Your task to perform on an android device: turn on wifi Image 0: 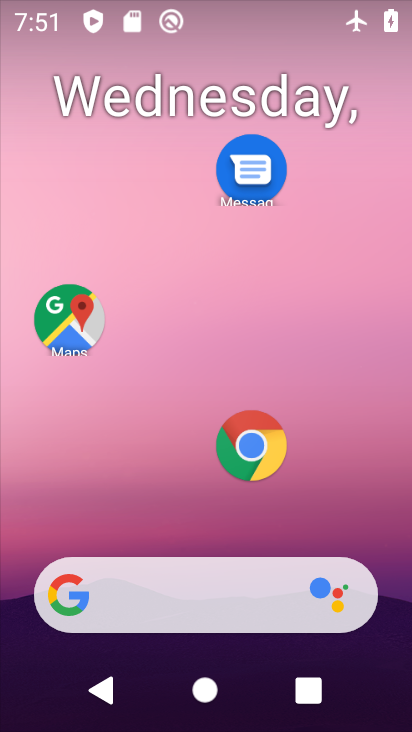
Step 0: drag from (346, 684) to (142, 18)
Your task to perform on an android device: turn on wifi Image 1: 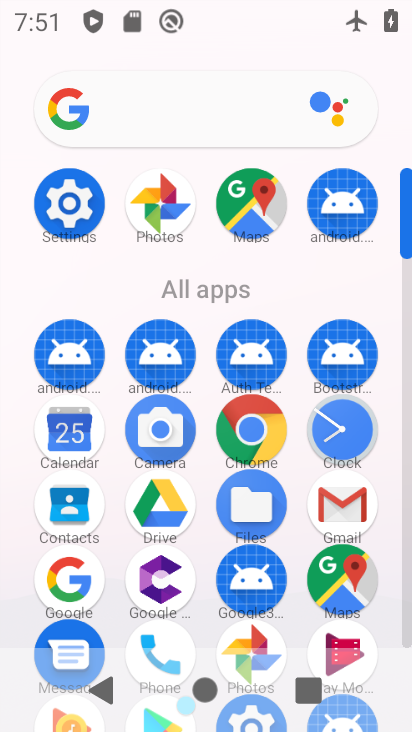
Step 1: click (73, 192)
Your task to perform on an android device: turn on wifi Image 2: 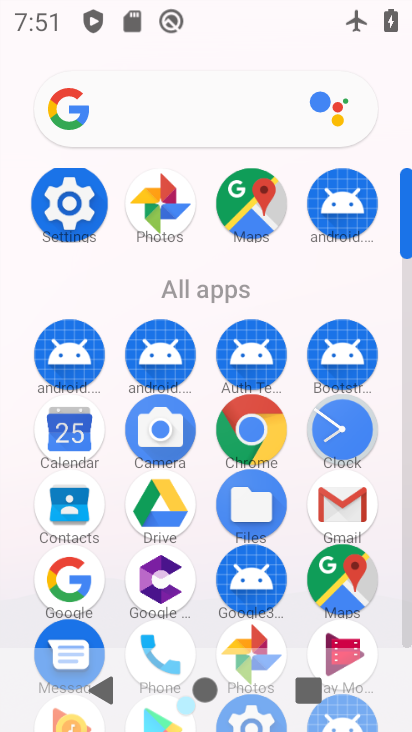
Step 2: click (72, 193)
Your task to perform on an android device: turn on wifi Image 3: 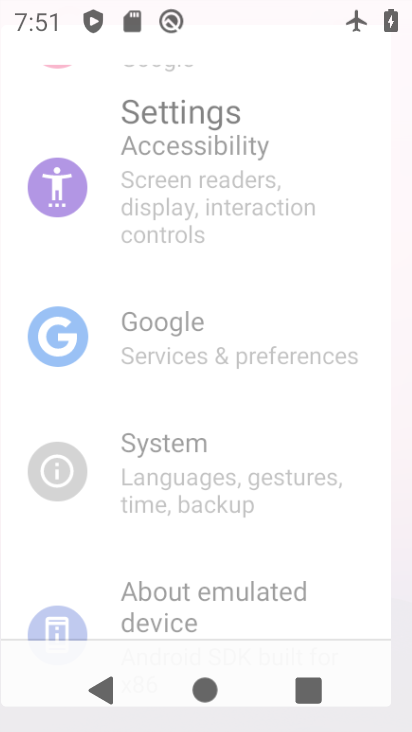
Step 3: click (72, 193)
Your task to perform on an android device: turn on wifi Image 4: 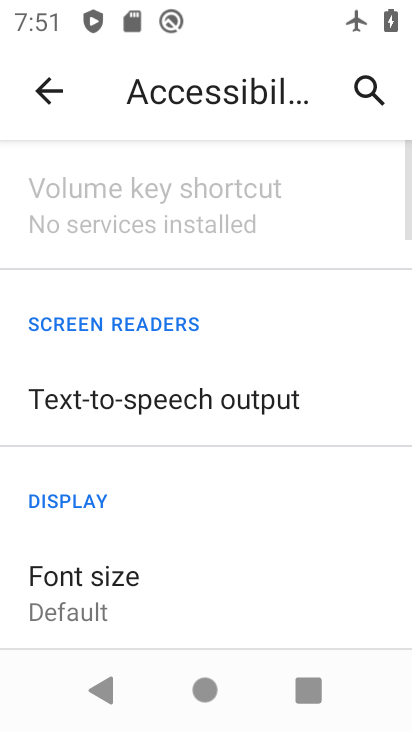
Step 4: click (41, 95)
Your task to perform on an android device: turn on wifi Image 5: 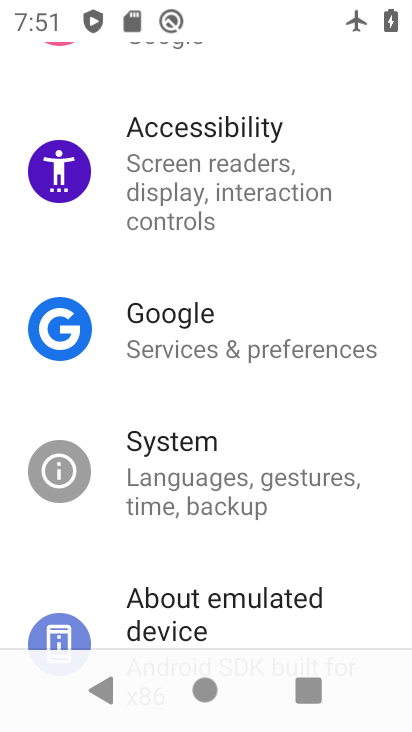
Step 5: drag from (190, 148) to (238, 622)
Your task to perform on an android device: turn on wifi Image 6: 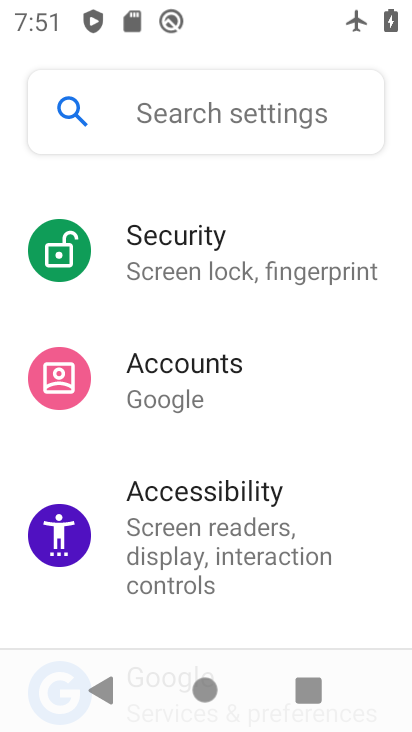
Step 6: drag from (149, 226) to (248, 539)
Your task to perform on an android device: turn on wifi Image 7: 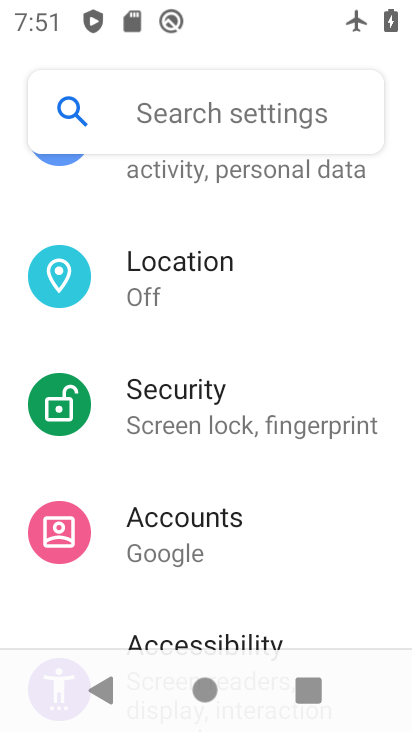
Step 7: drag from (200, 220) to (178, 645)
Your task to perform on an android device: turn on wifi Image 8: 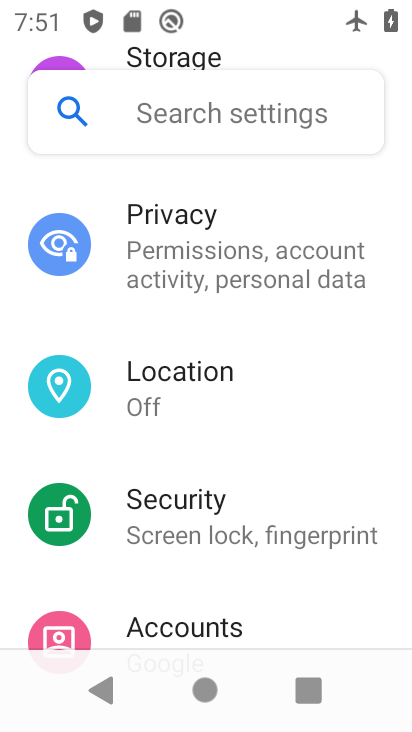
Step 8: drag from (105, 196) to (190, 527)
Your task to perform on an android device: turn on wifi Image 9: 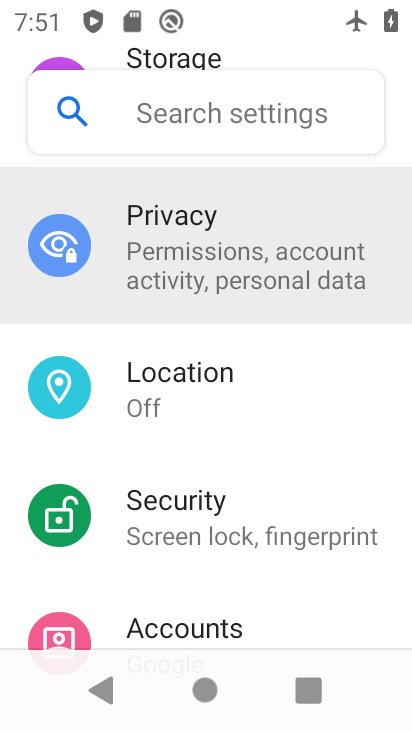
Step 9: drag from (146, 267) to (182, 419)
Your task to perform on an android device: turn on wifi Image 10: 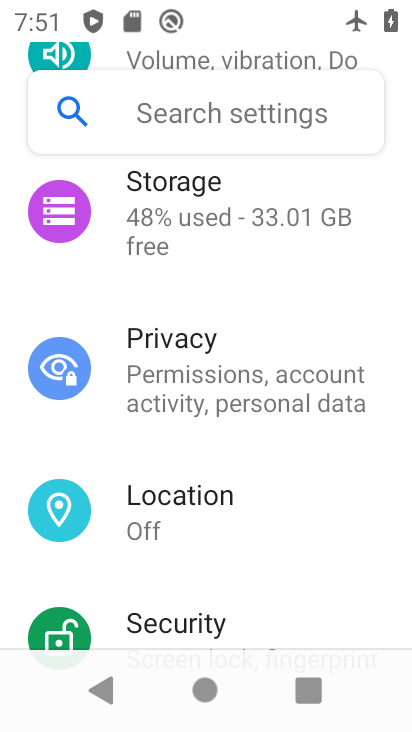
Step 10: drag from (164, 304) to (194, 419)
Your task to perform on an android device: turn on wifi Image 11: 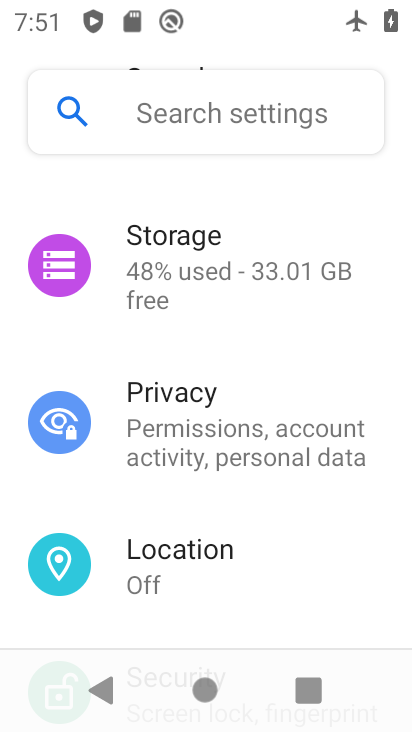
Step 11: drag from (203, 199) to (228, 467)
Your task to perform on an android device: turn on wifi Image 12: 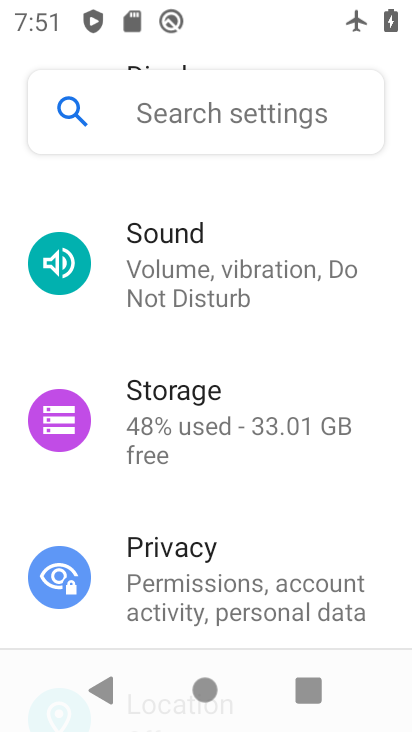
Step 12: drag from (218, 229) to (206, 462)
Your task to perform on an android device: turn on wifi Image 13: 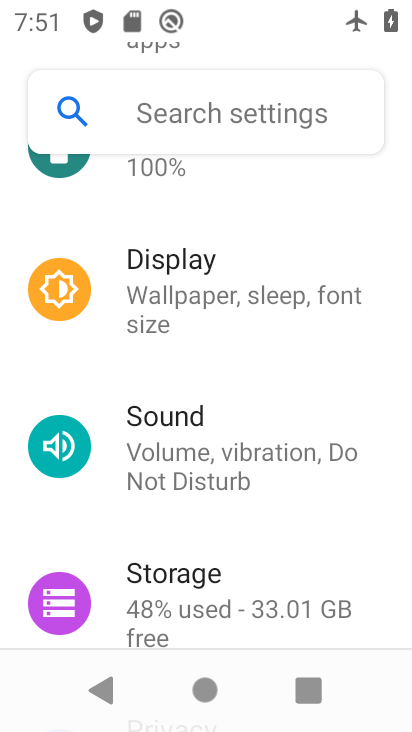
Step 13: drag from (120, 230) to (121, 645)
Your task to perform on an android device: turn on wifi Image 14: 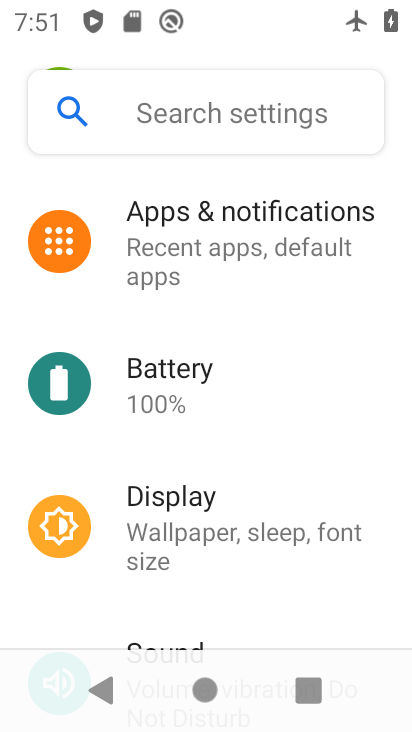
Step 14: drag from (152, 254) to (148, 639)
Your task to perform on an android device: turn on wifi Image 15: 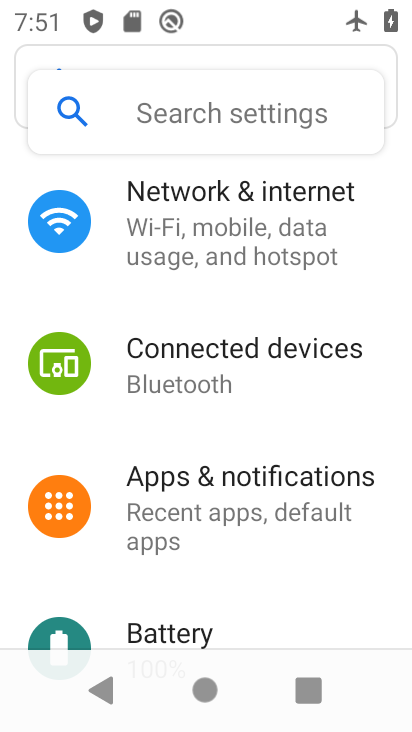
Step 15: drag from (91, 82) to (143, 420)
Your task to perform on an android device: turn on wifi Image 16: 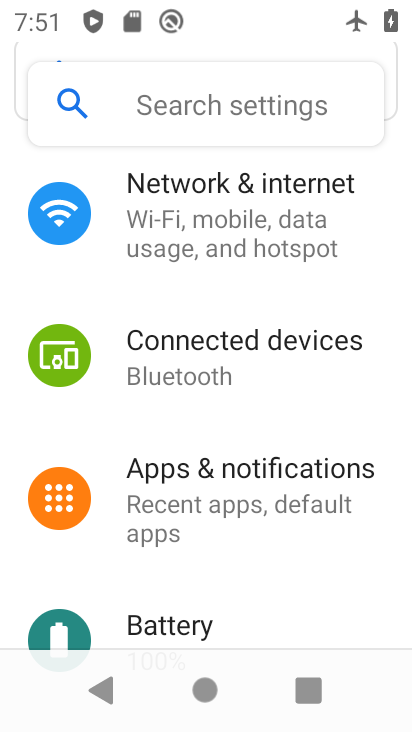
Step 16: drag from (150, 320) to (180, 533)
Your task to perform on an android device: turn on wifi Image 17: 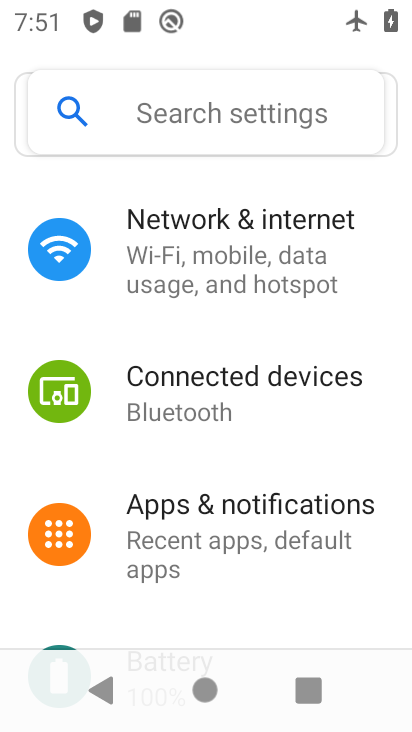
Step 17: click (214, 253)
Your task to perform on an android device: turn on wifi Image 18: 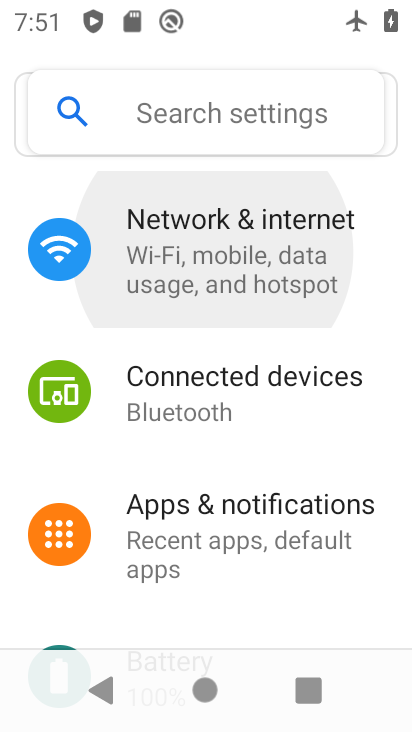
Step 18: click (214, 253)
Your task to perform on an android device: turn on wifi Image 19: 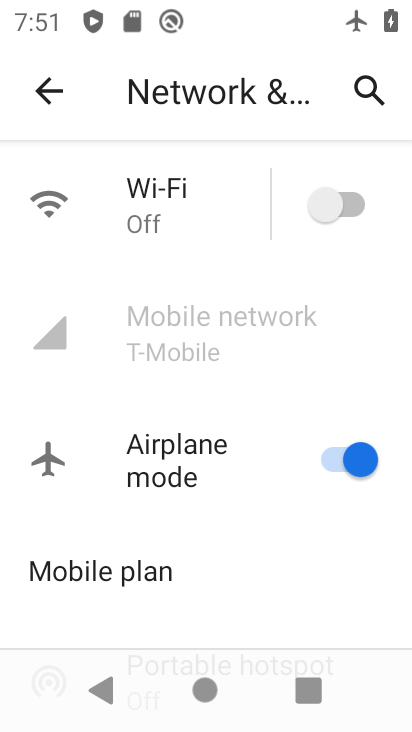
Step 19: click (330, 193)
Your task to perform on an android device: turn on wifi Image 20: 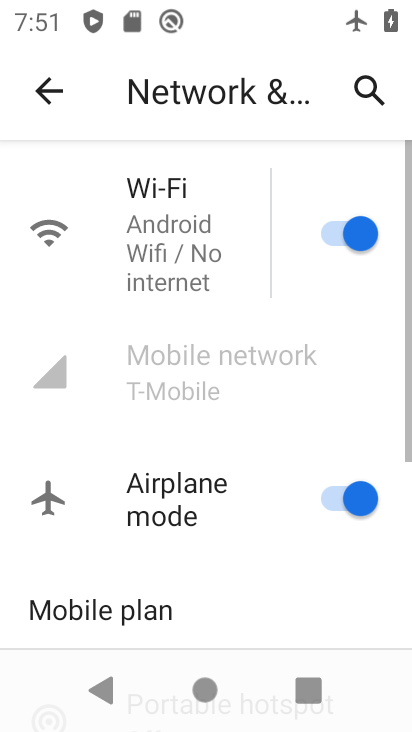
Step 20: click (350, 482)
Your task to perform on an android device: turn on wifi Image 21: 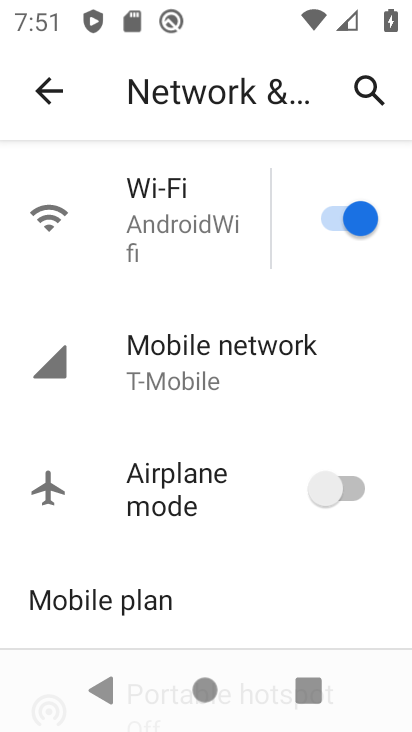
Step 21: task complete